Your task to perform on an android device: set the stopwatch Image 0: 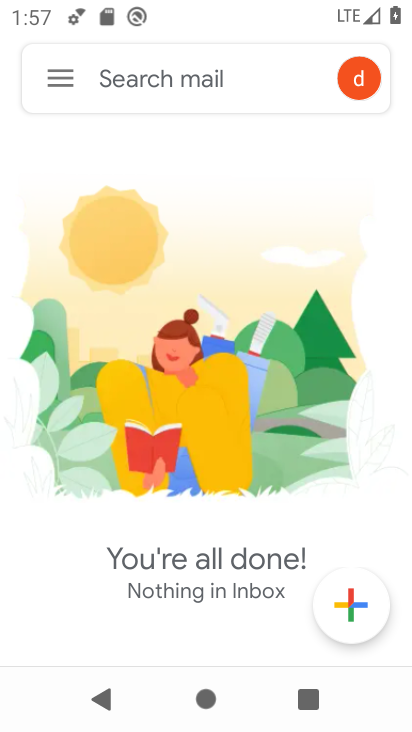
Step 0: press home button
Your task to perform on an android device: set the stopwatch Image 1: 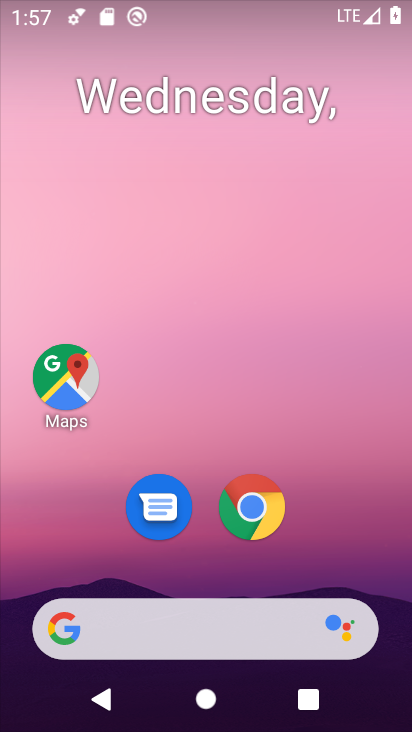
Step 1: drag from (213, 576) to (202, 92)
Your task to perform on an android device: set the stopwatch Image 2: 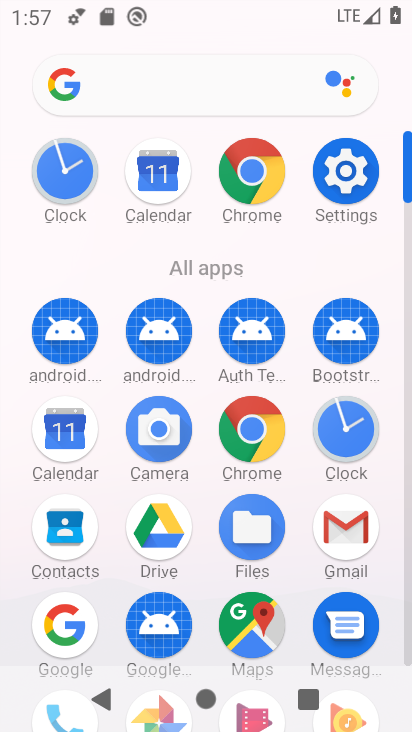
Step 2: click (343, 438)
Your task to perform on an android device: set the stopwatch Image 3: 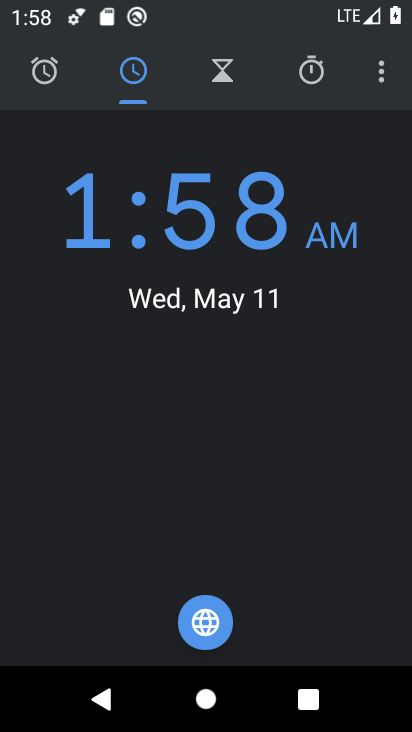
Step 3: click (298, 85)
Your task to perform on an android device: set the stopwatch Image 4: 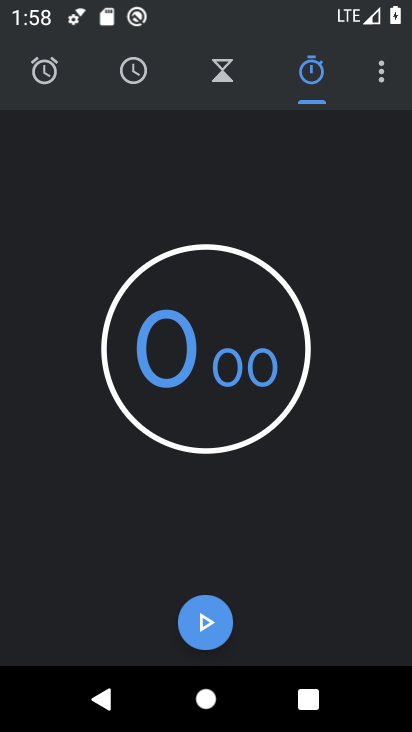
Step 4: click (191, 627)
Your task to perform on an android device: set the stopwatch Image 5: 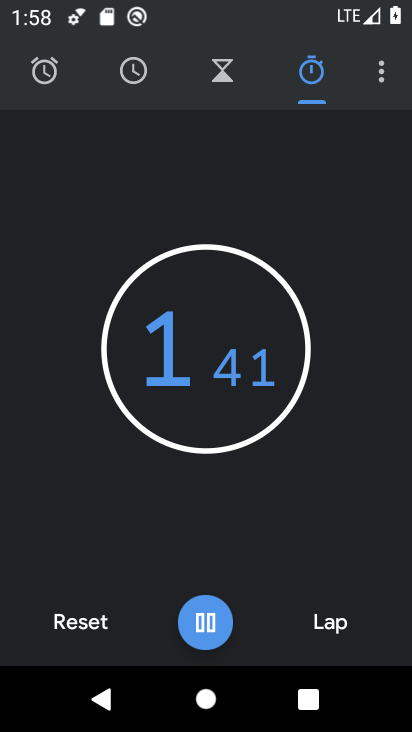
Step 5: task complete